Your task to perform on an android device: Open display settings Image 0: 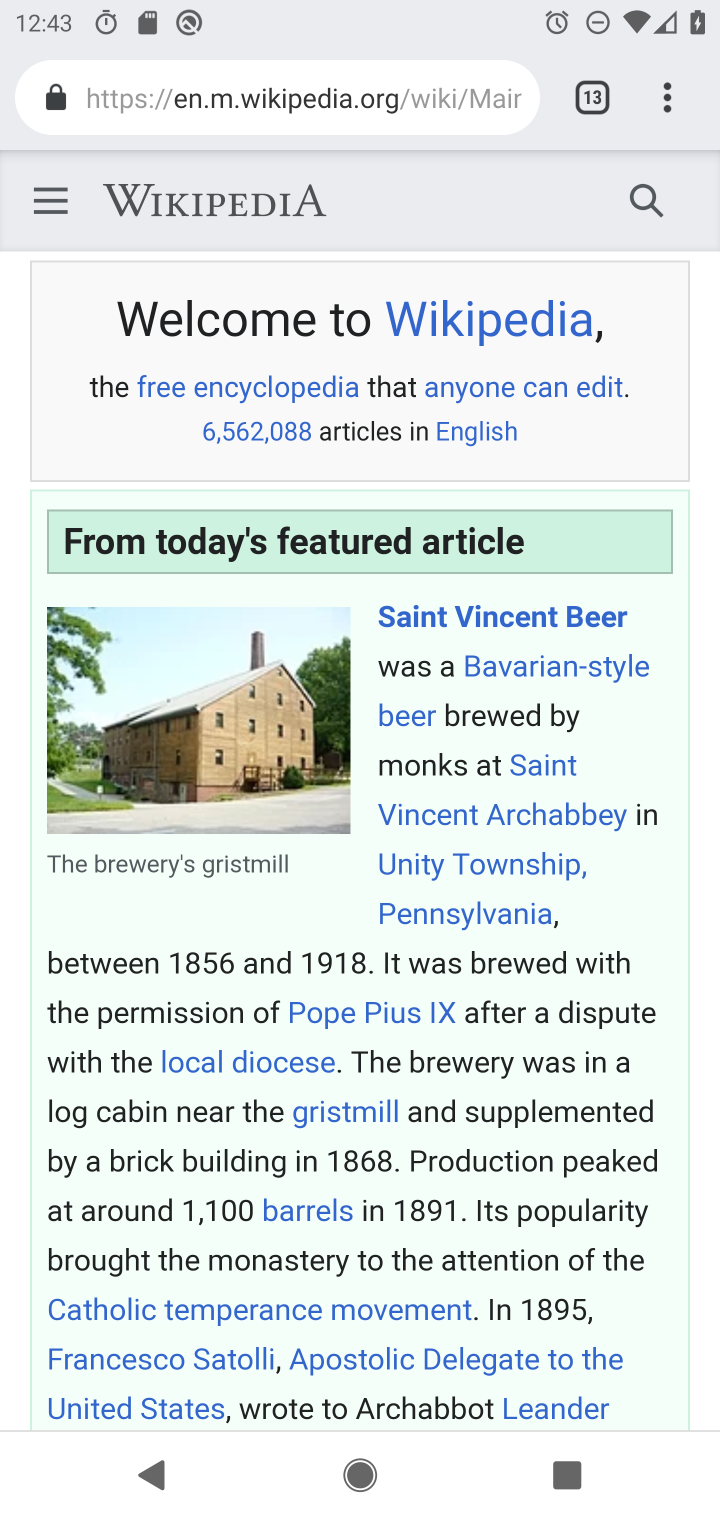
Step 0: press home button
Your task to perform on an android device: Open display settings Image 1: 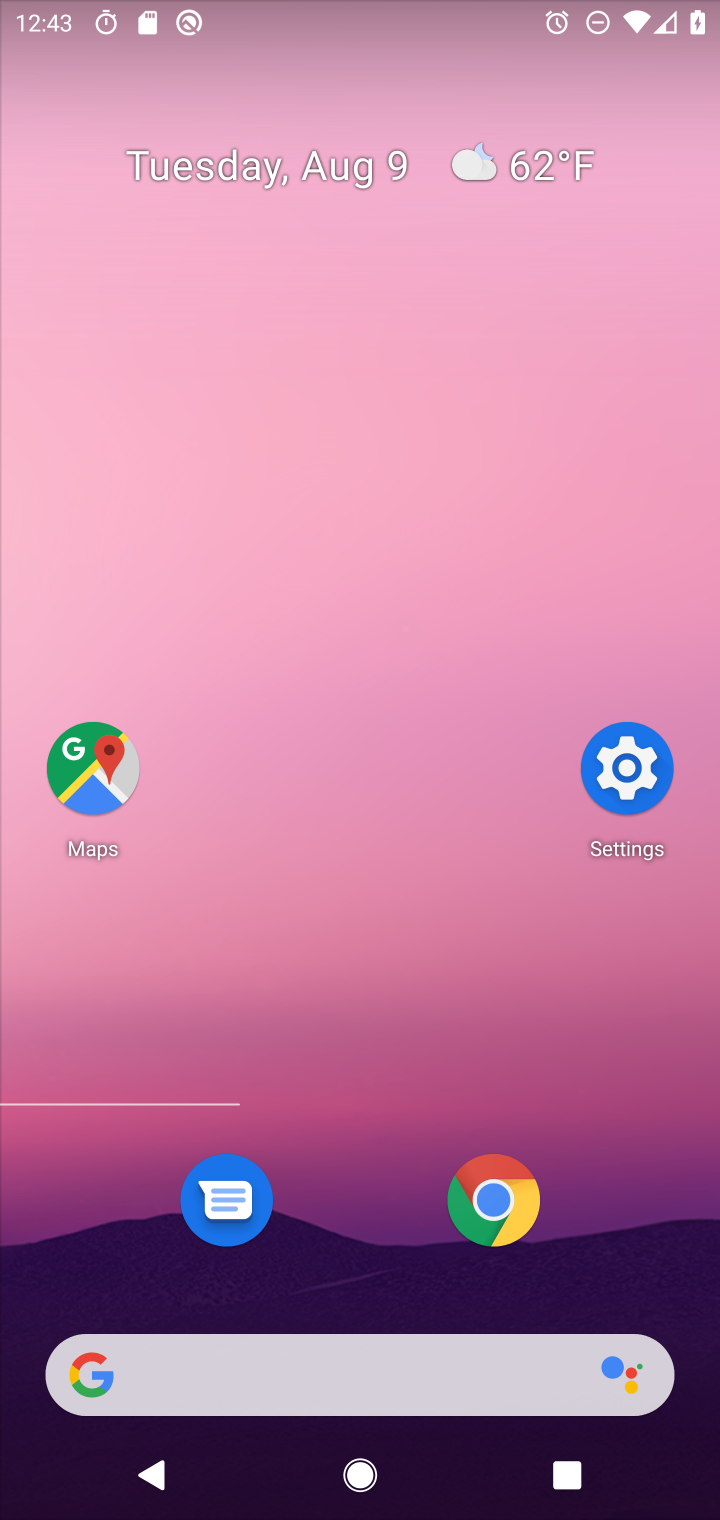
Step 1: click (632, 757)
Your task to perform on an android device: Open display settings Image 2: 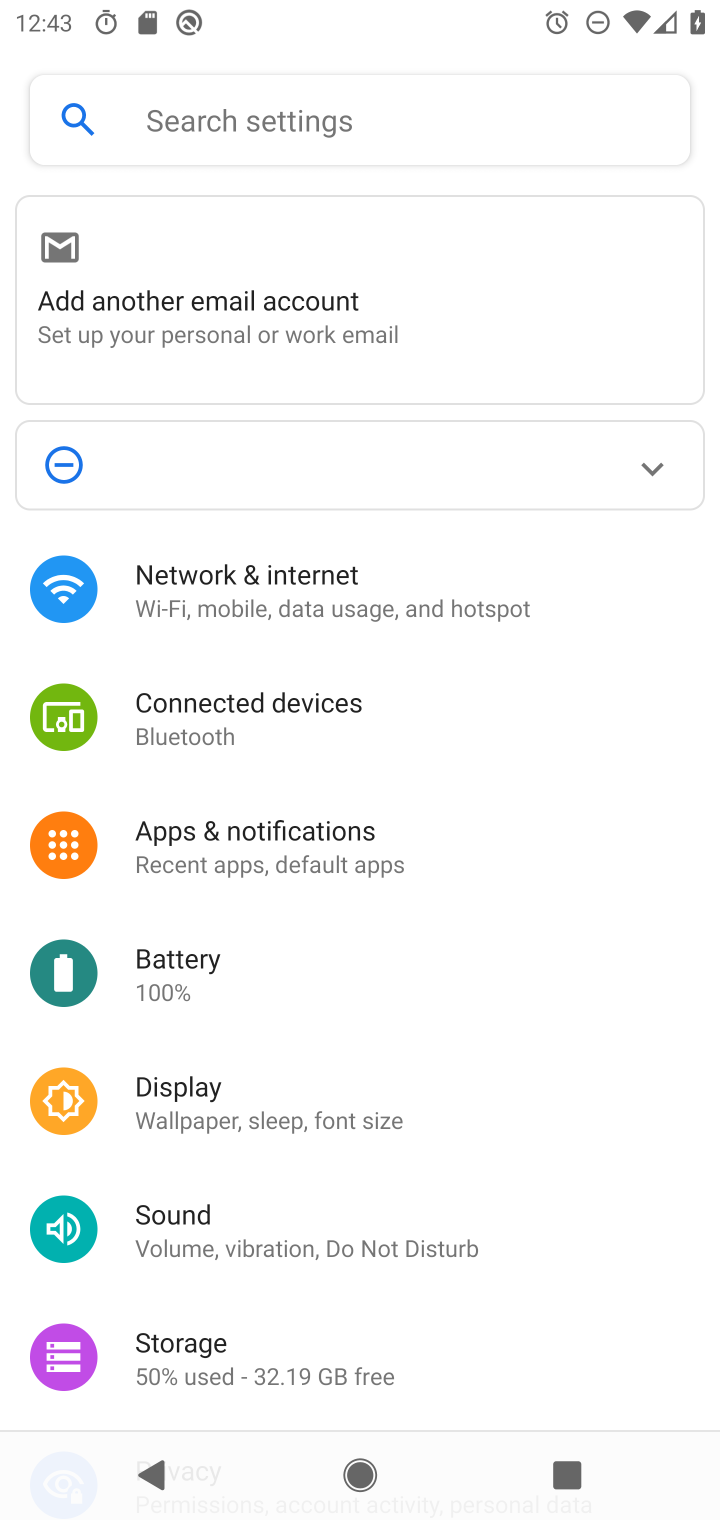
Step 2: click (164, 1086)
Your task to perform on an android device: Open display settings Image 3: 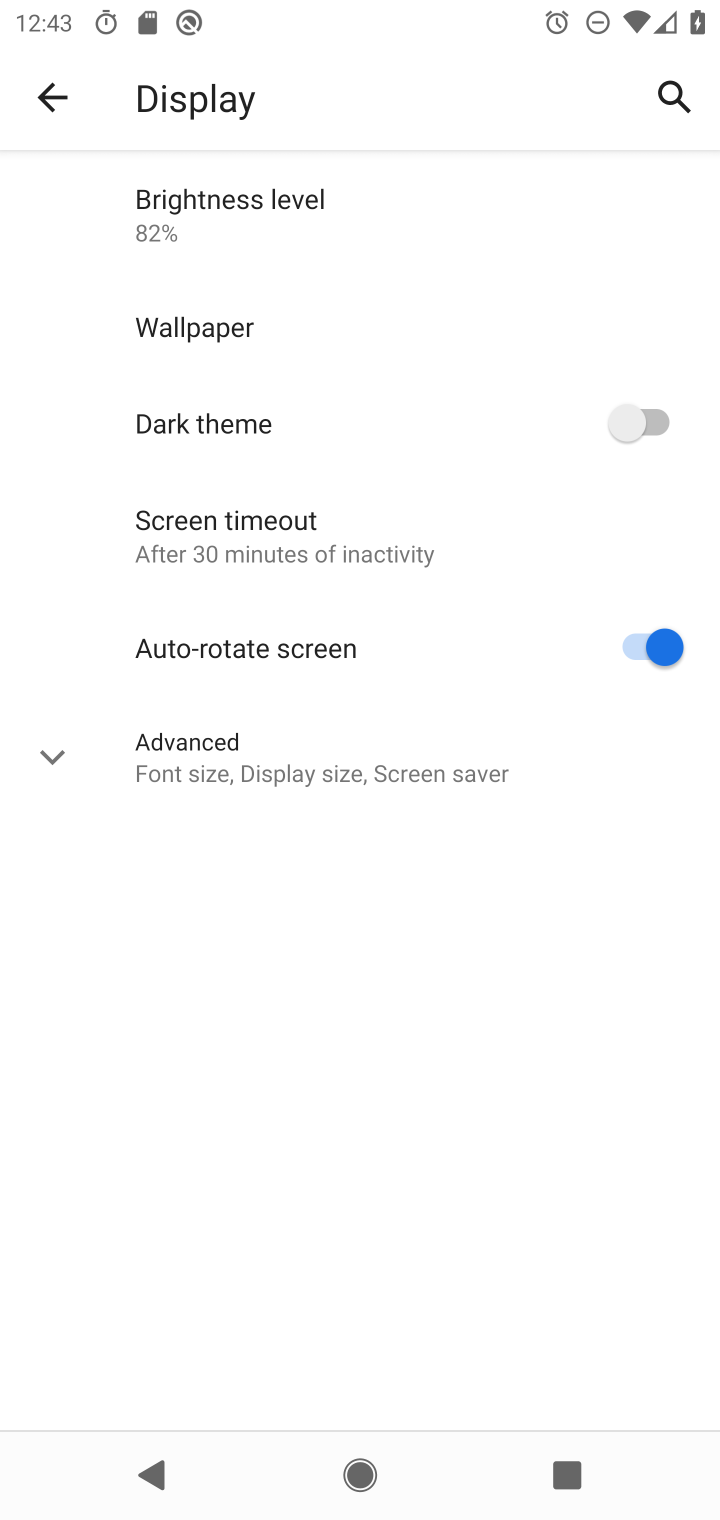
Step 3: task complete